Your task to perform on an android device: open a bookmark in the chrome app Image 0: 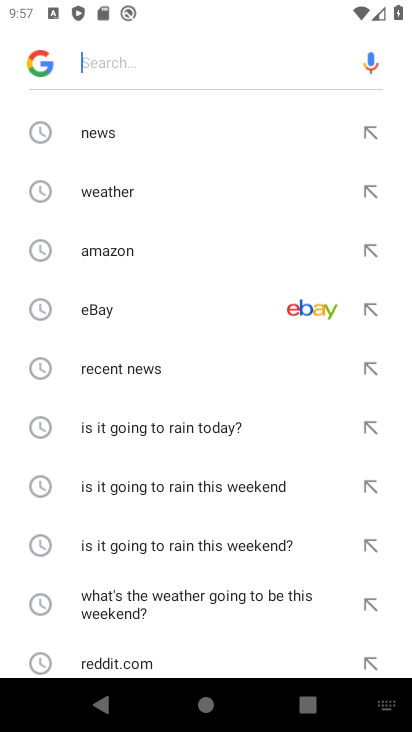
Step 0: press home button
Your task to perform on an android device: open a bookmark in the chrome app Image 1: 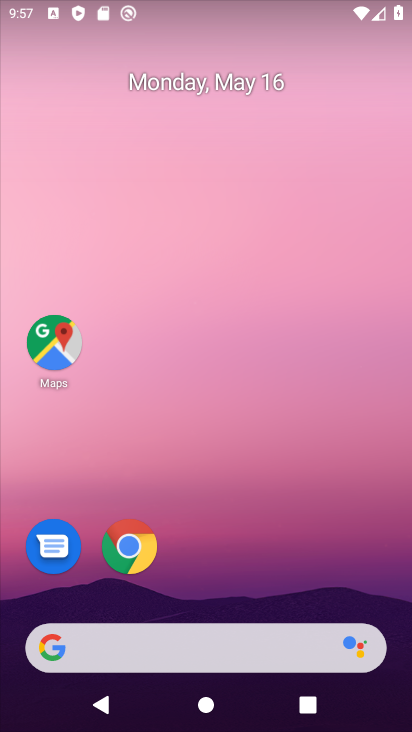
Step 1: click (141, 538)
Your task to perform on an android device: open a bookmark in the chrome app Image 2: 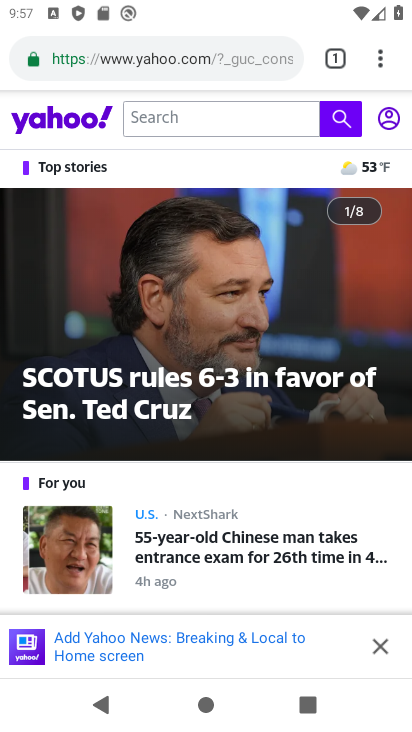
Step 2: click (386, 56)
Your task to perform on an android device: open a bookmark in the chrome app Image 3: 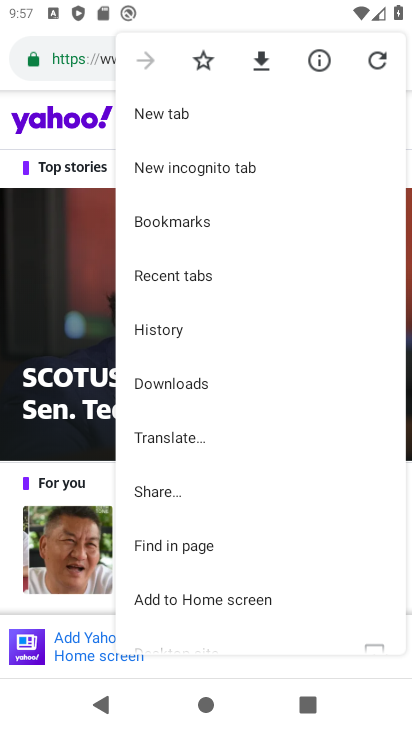
Step 3: click (247, 205)
Your task to perform on an android device: open a bookmark in the chrome app Image 4: 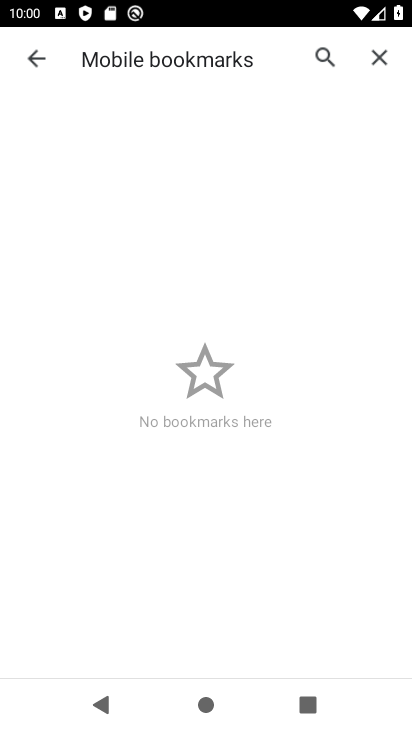
Step 4: task complete